Your task to perform on an android device: Open Chrome and go to the settings page Image 0: 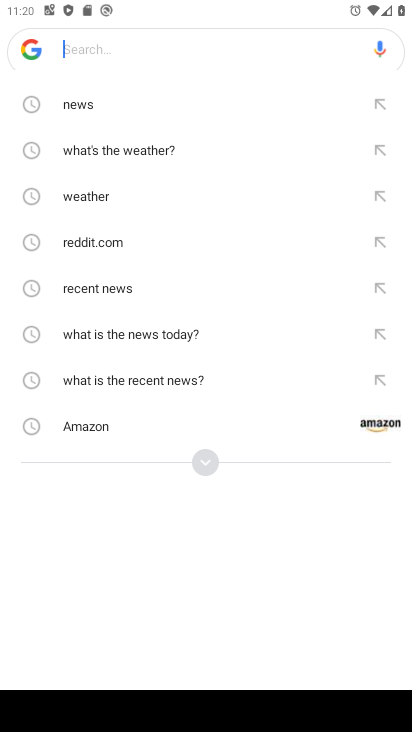
Step 0: press home button
Your task to perform on an android device: Open Chrome and go to the settings page Image 1: 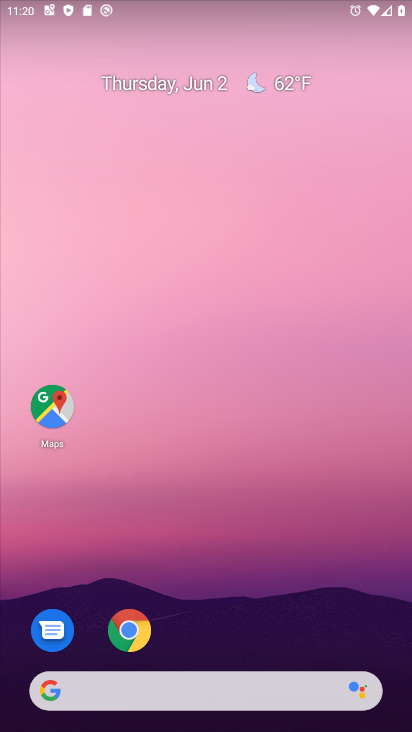
Step 1: click (139, 642)
Your task to perform on an android device: Open Chrome and go to the settings page Image 2: 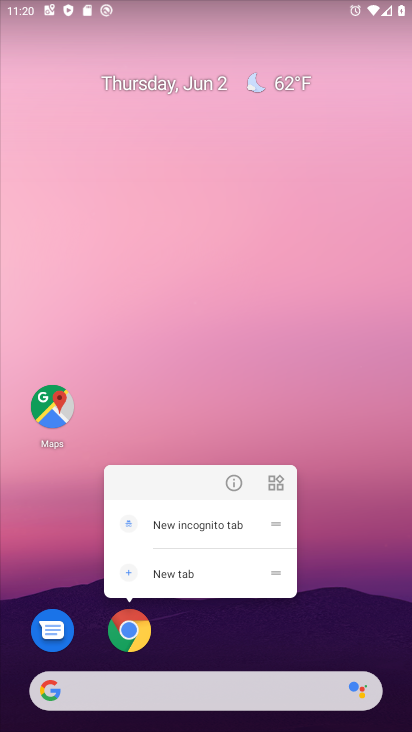
Step 2: click (132, 636)
Your task to perform on an android device: Open Chrome and go to the settings page Image 3: 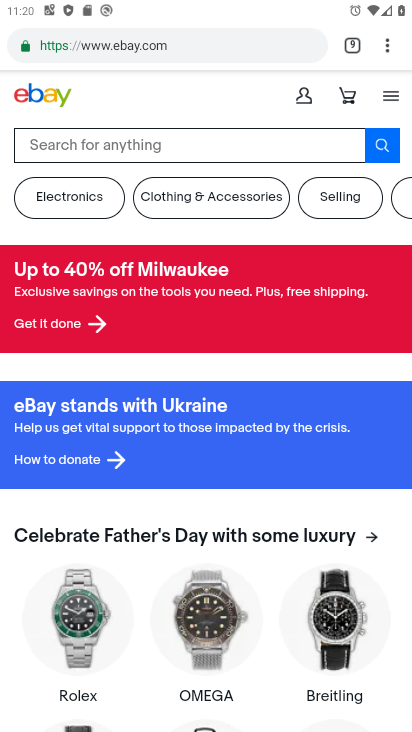
Step 3: task complete